Your task to perform on an android device: Go to Google Image 0: 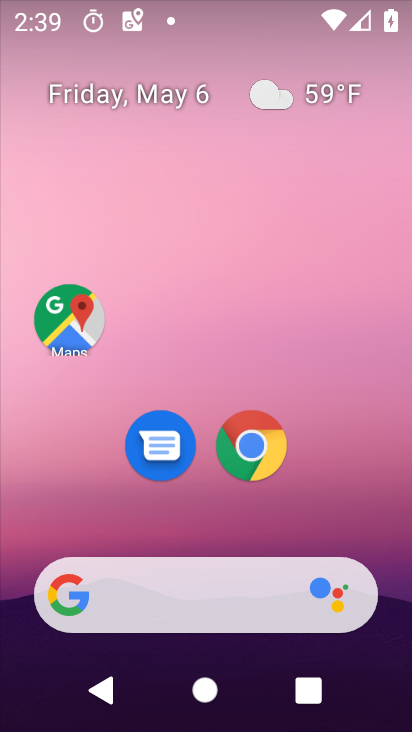
Step 0: click (240, 57)
Your task to perform on an android device: Go to Google Image 1: 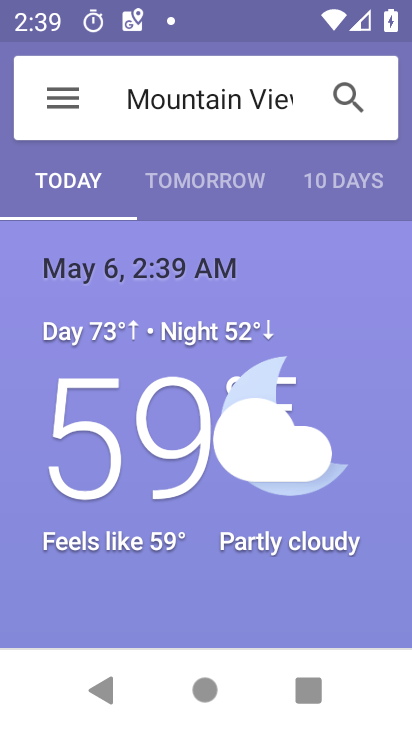
Step 1: task complete